Your task to perform on an android device: Search for Mexican restaurants on Maps Image 0: 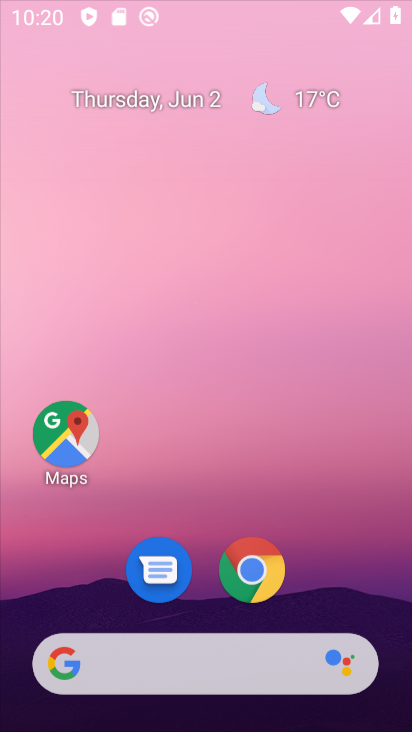
Step 0: press home button
Your task to perform on an android device: Search for Mexican restaurants on Maps Image 1: 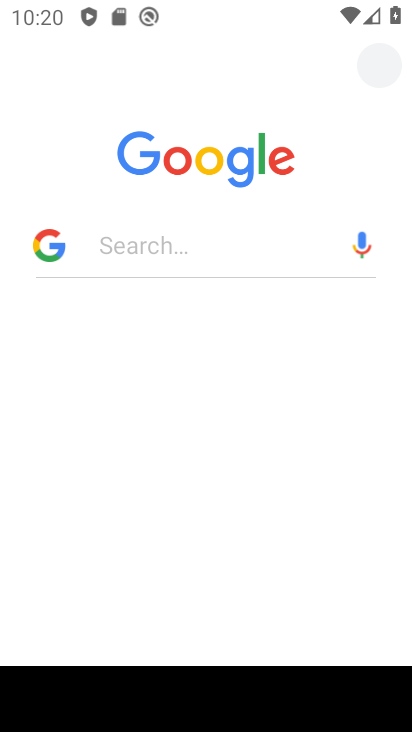
Step 1: click (241, 7)
Your task to perform on an android device: Search for Mexican restaurants on Maps Image 2: 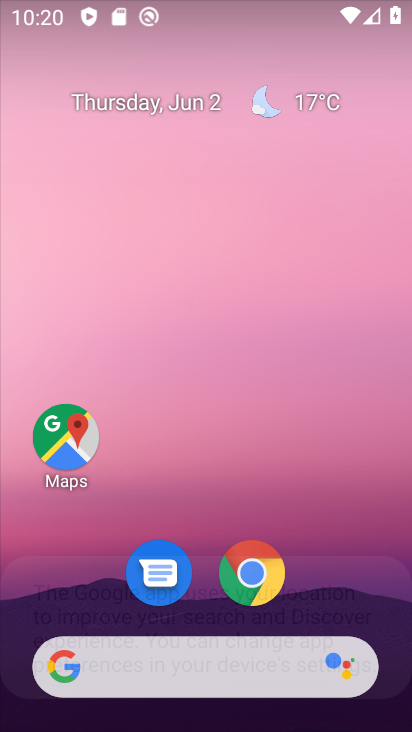
Step 2: drag from (256, 641) to (286, 79)
Your task to perform on an android device: Search for Mexican restaurants on Maps Image 3: 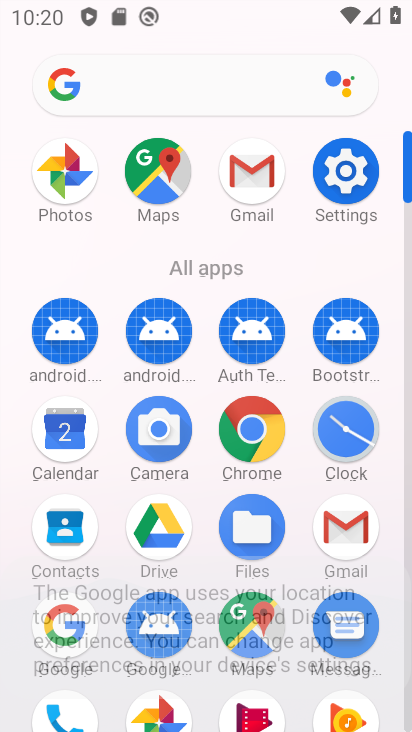
Step 3: click (312, 224)
Your task to perform on an android device: Search for Mexican restaurants on Maps Image 4: 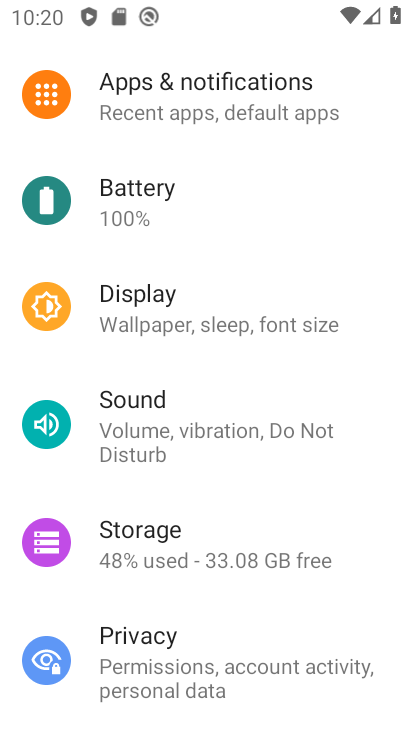
Step 4: click (246, 638)
Your task to perform on an android device: Search for Mexican restaurants on Maps Image 5: 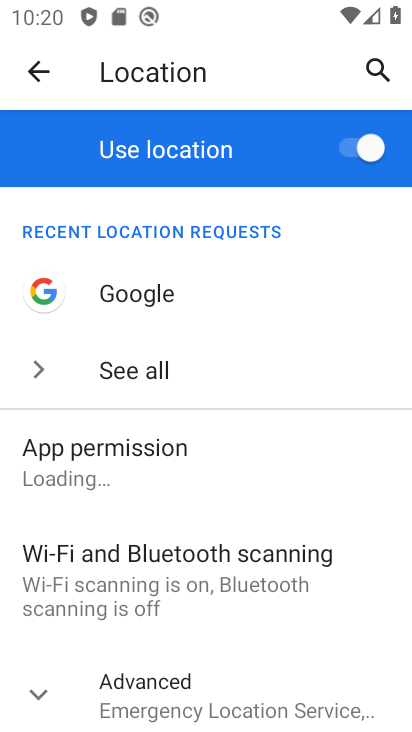
Step 5: press back button
Your task to perform on an android device: Search for Mexican restaurants on Maps Image 6: 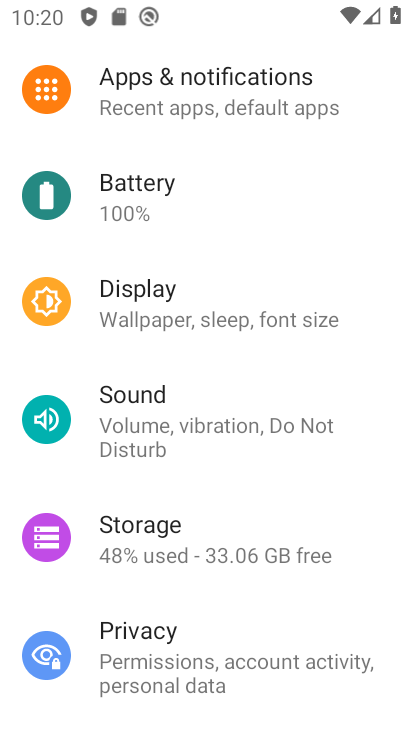
Step 6: press back button
Your task to perform on an android device: Search for Mexican restaurants on Maps Image 7: 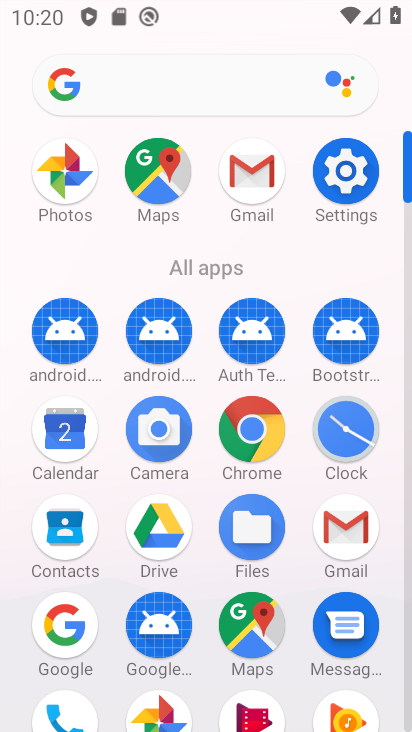
Step 7: click (270, 614)
Your task to perform on an android device: Search for Mexican restaurants on Maps Image 8: 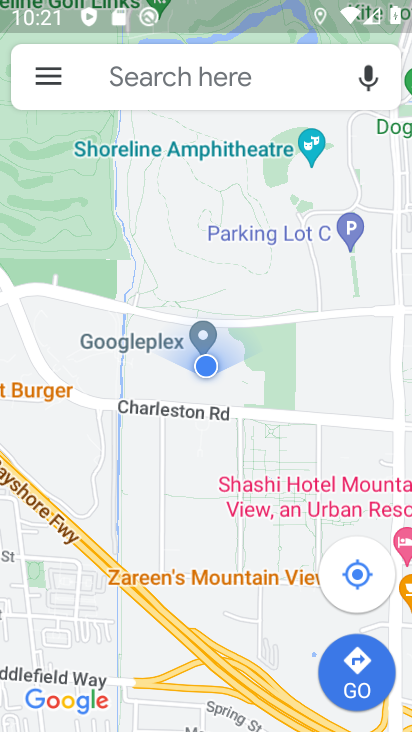
Step 8: click (181, 70)
Your task to perform on an android device: Search for Mexican restaurants on Maps Image 9: 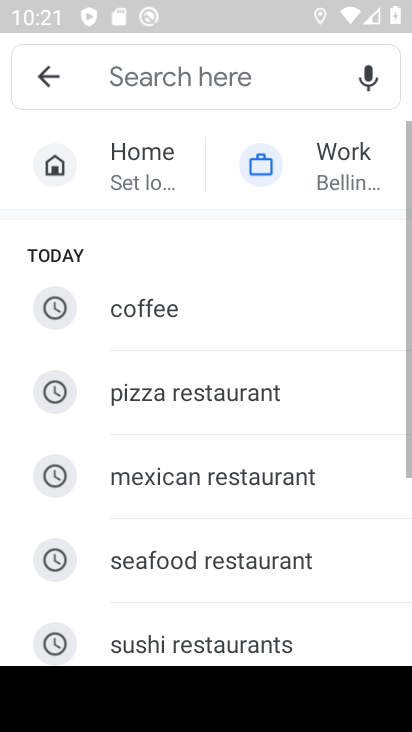
Step 9: click (214, 489)
Your task to perform on an android device: Search for Mexican restaurants on Maps Image 10: 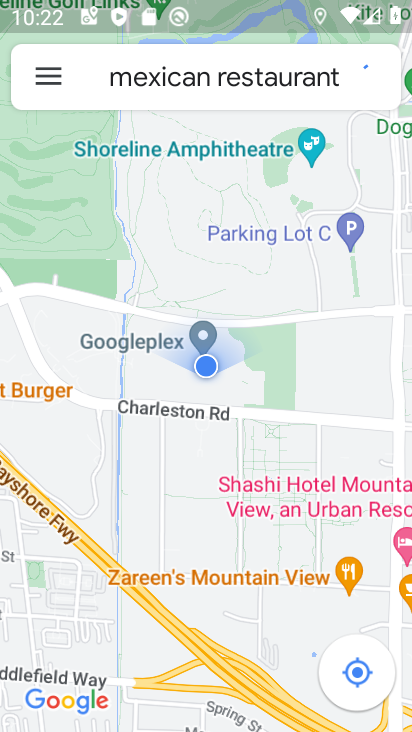
Step 10: task complete